Your task to perform on an android device: Set the phone to "Do not disturb". Image 0: 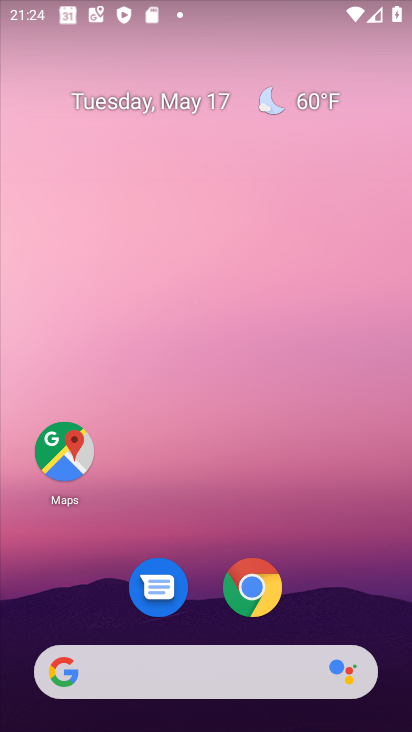
Step 0: drag from (283, 540) to (250, 308)
Your task to perform on an android device: Set the phone to "Do not disturb". Image 1: 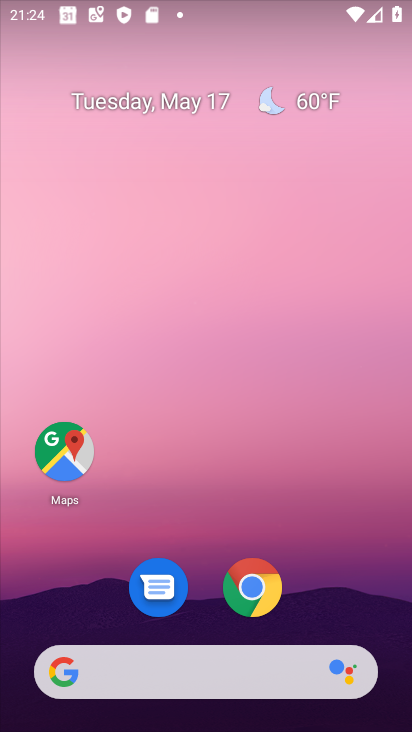
Step 1: drag from (200, 500) to (253, 74)
Your task to perform on an android device: Set the phone to "Do not disturb". Image 2: 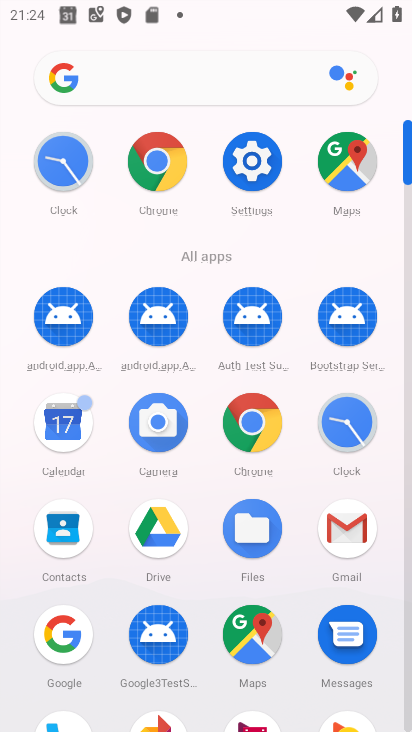
Step 2: click (261, 166)
Your task to perform on an android device: Set the phone to "Do not disturb". Image 3: 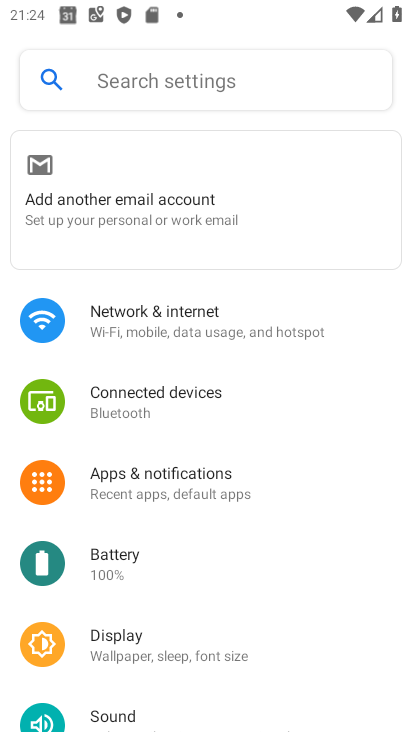
Step 3: drag from (195, 555) to (206, 224)
Your task to perform on an android device: Set the phone to "Do not disturb". Image 4: 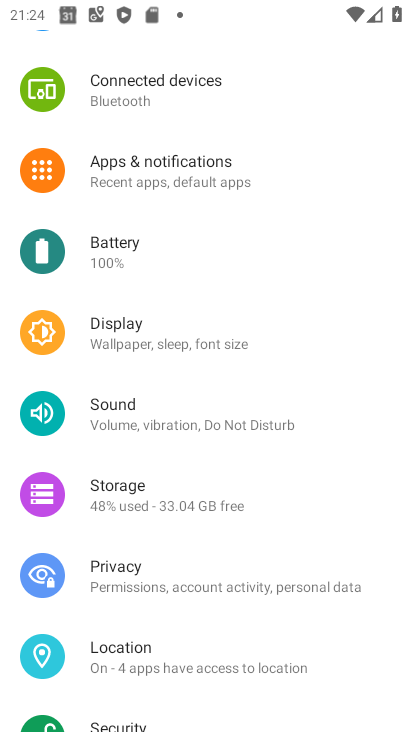
Step 4: click (219, 421)
Your task to perform on an android device: Set the phone to "Do not disturb". Image 5: 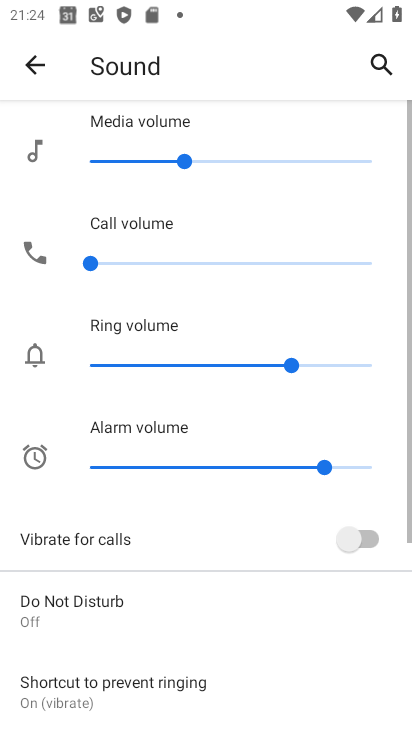
Step 5: drag from (234, 566) to (223, 309)
Your task to perform on an android device: Set the phone to "Do not disturb". Image 6: 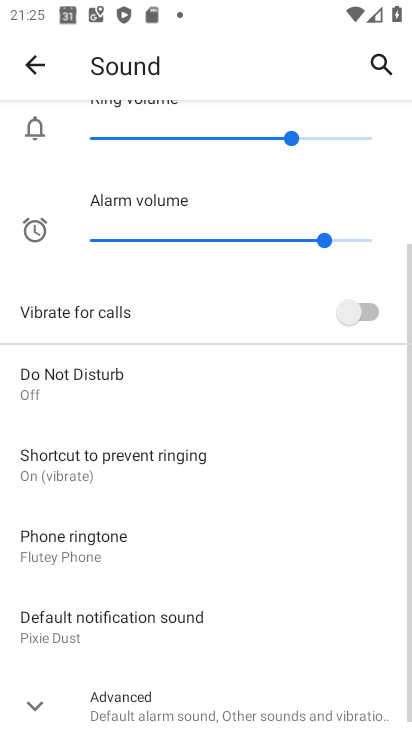
Step 6: drag from (226, 600) to (238, 228)
Your task to perform on an android device: Set the phone to "Do not disturb". Image 7: 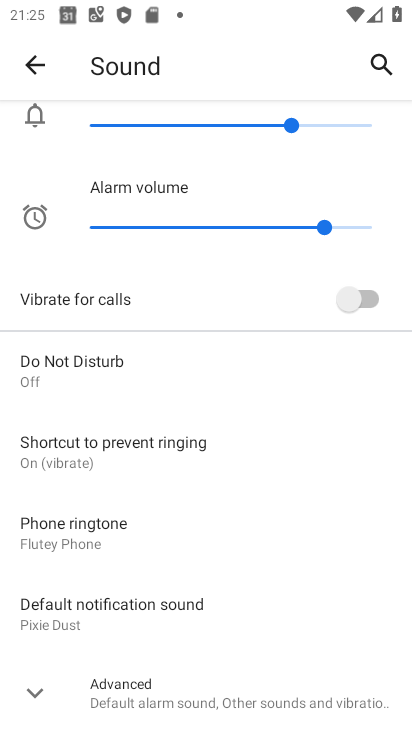
Step 7: click (137, 384)
Your task to perform on an android device: Set the phone to "Do not disturb". Image 8: 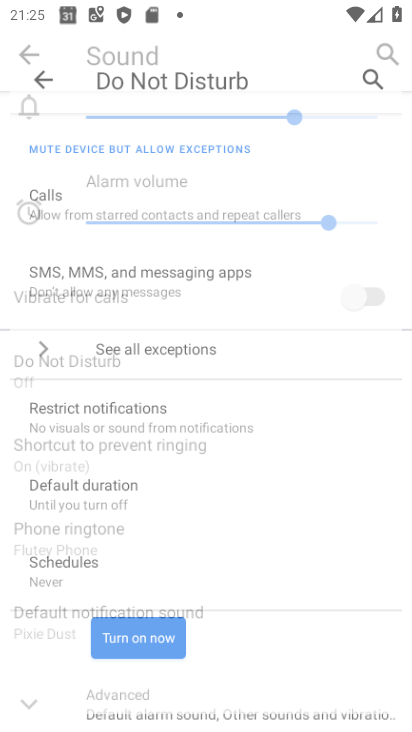
Step 8: drag from (189, 489) to (231, 136)
Your task to perform on an android device: Set the phone to "Do not disturb". Image 9: 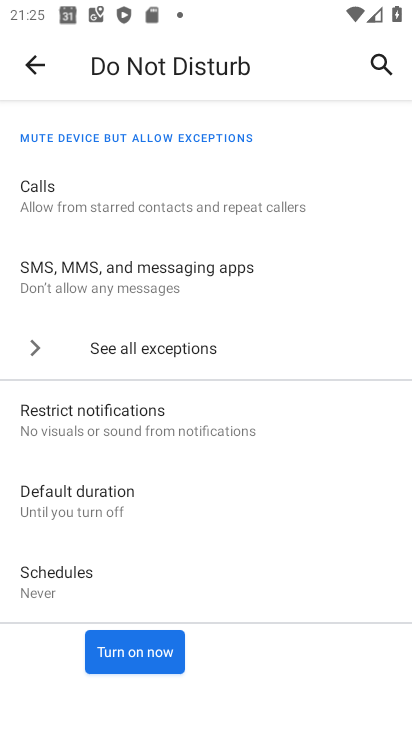
Step 9: click (148, 652)
Your task to perform on an android device: Set the phone to "Do not disturb". Image 10: 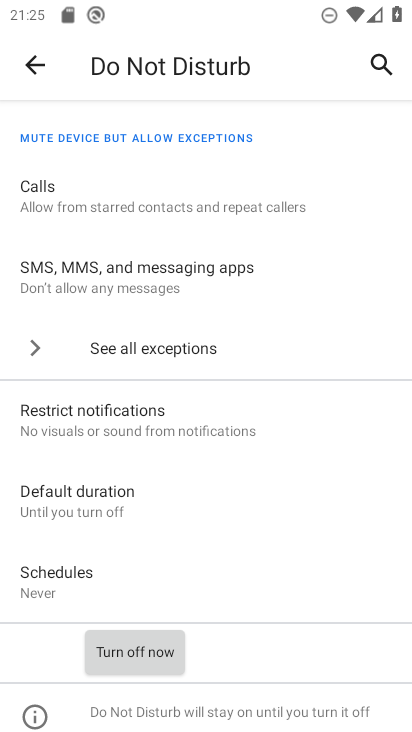
Step 10: task complete